Your task to perform on an android device: Open Google Chrome and click the shortcut for Amazon.com Image 0: 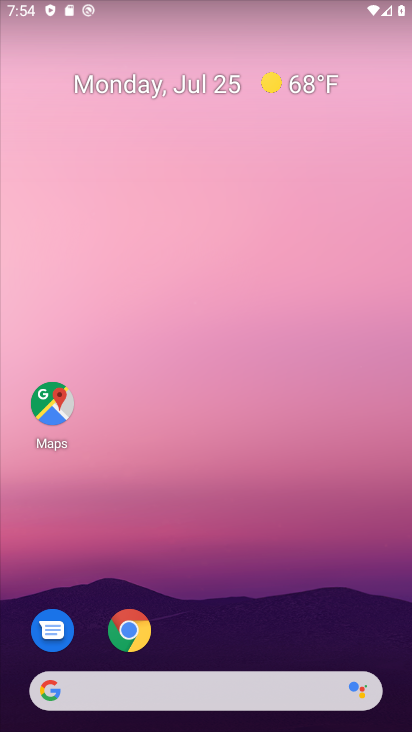
Step 0: click (128, 630)
Your task to perform on an android device: Open Google Chrome and click the shortcut for Amazon.com Image 1: 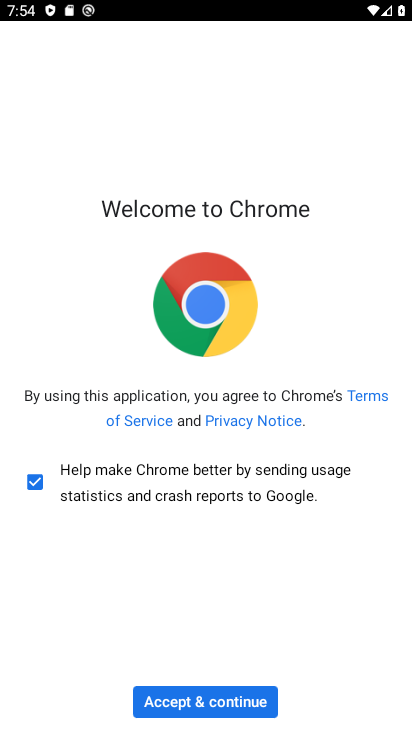
Step 1: click (191, 702)
Your task to perform on an android device: Open Google Chrome and click the shortcut for Amazon.com Image 2: 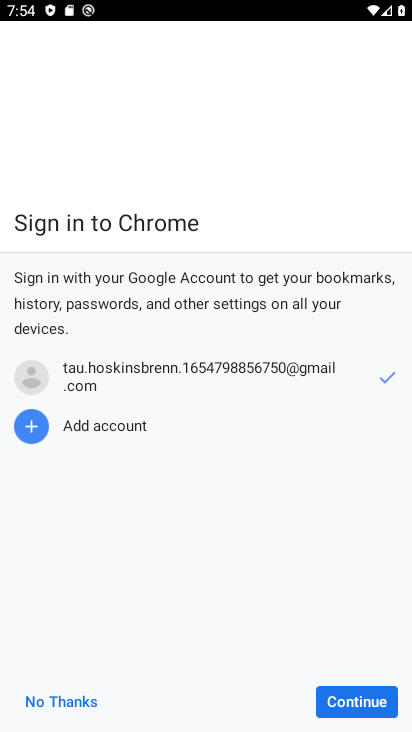
Step 2: click (338, 694)
Your task to perform on an android device: Open Google Chrome and click the shortcut for Amazon.com Image 3: 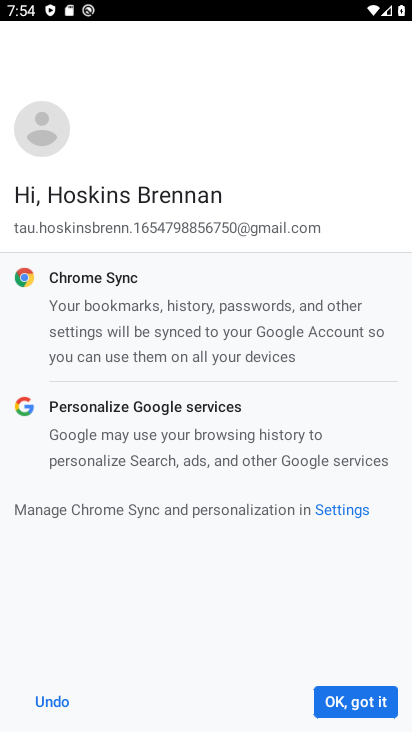
Step 3: click (343, 694)
Your task to perform on an android device: Open Google Chrome and click the shortcut for Amazon.com Image 4: 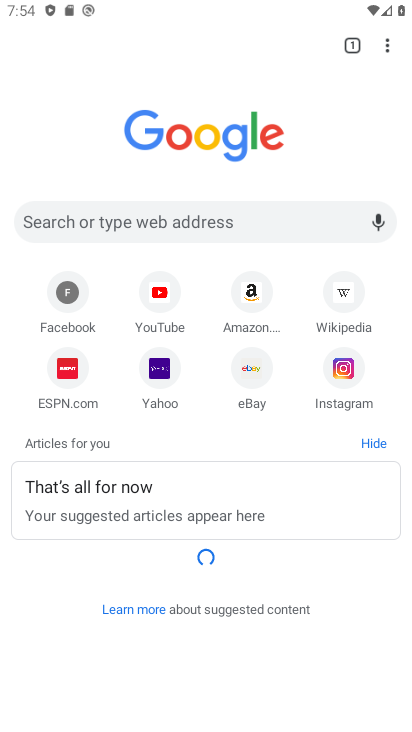
Step 4: click (253, 290)
Your task to perform on an android device: Open Google Chrome and click the shortcut for Amazon.com Image 5: 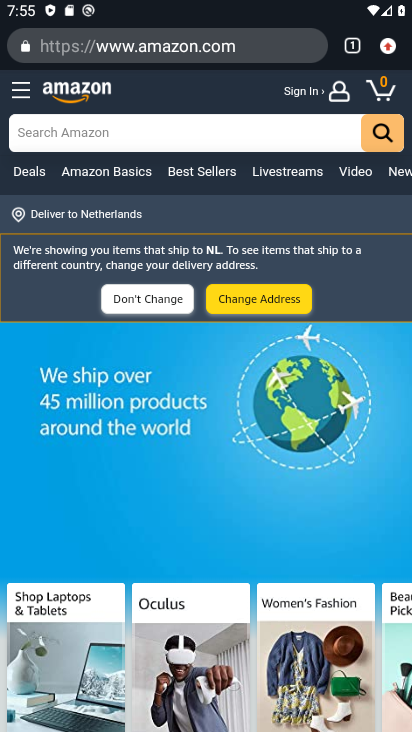
Step 5: task complete